Your task to perform on an android device: Open network settings Image 0: 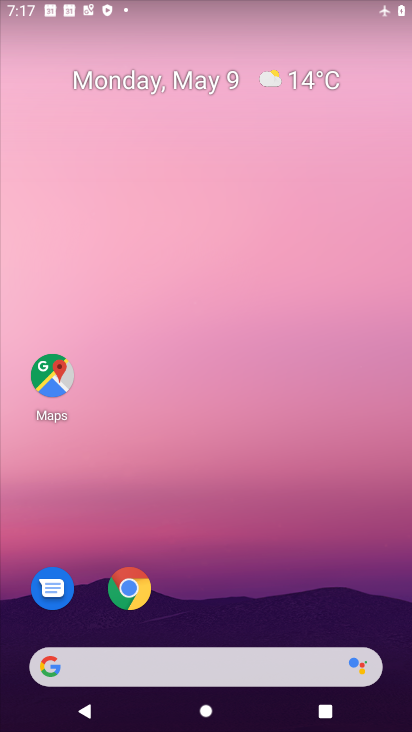
Step 0: drag from (351, 613) to (201, 142)
Your task to perform on an android device: Open network settings Image 1: 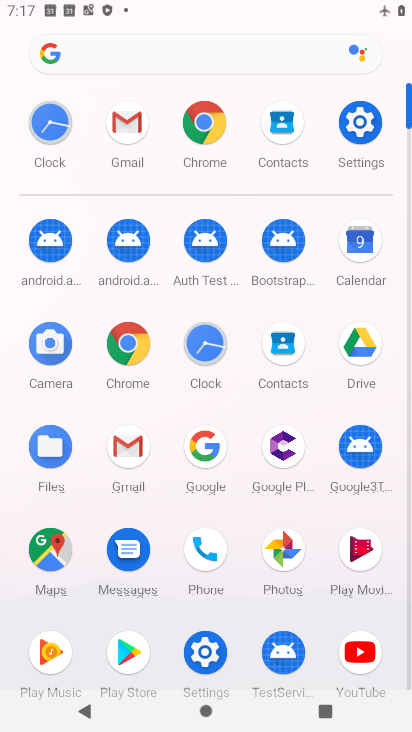
Step 1: click (369, 123)
Your task to perform on an android device: Open network settings Image 2: 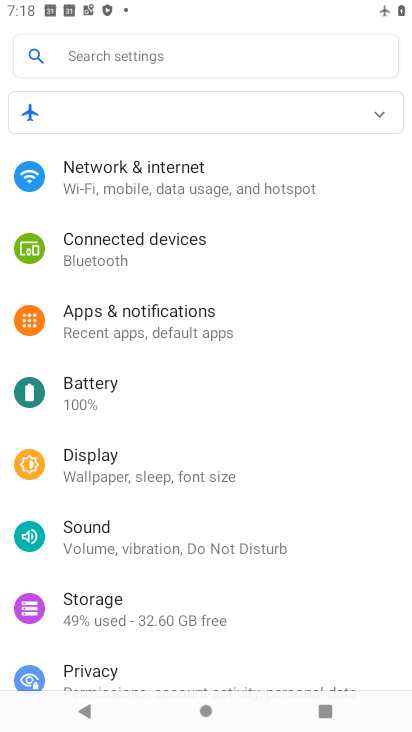
Step 2: click (189, 196)
Your task to perform on an android device: Open network settings Image 3: 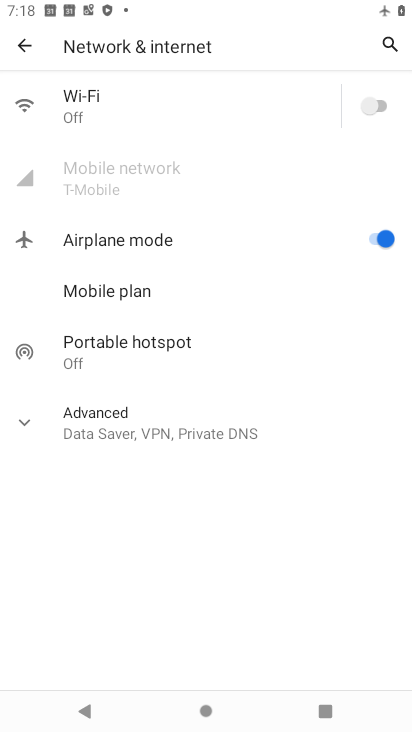
Step 3: task complete